Your task to perform on an android device: Show me popular games on the Play Store Image 0: 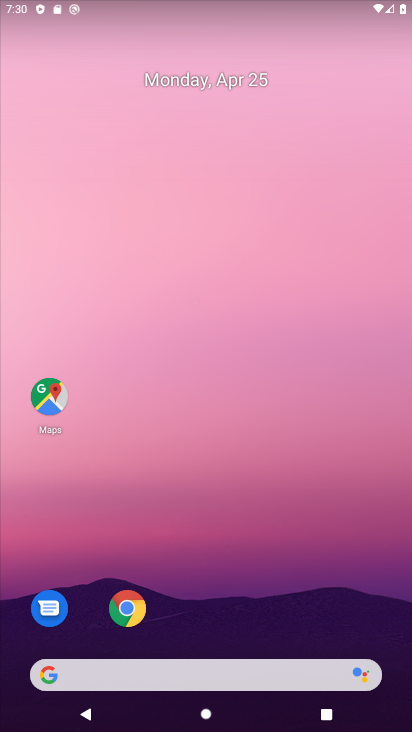
Step 0: drag from (245, 582) to (257, 127)
Your task to perform on an android device: Show me popular games on the Play Store Image 1: 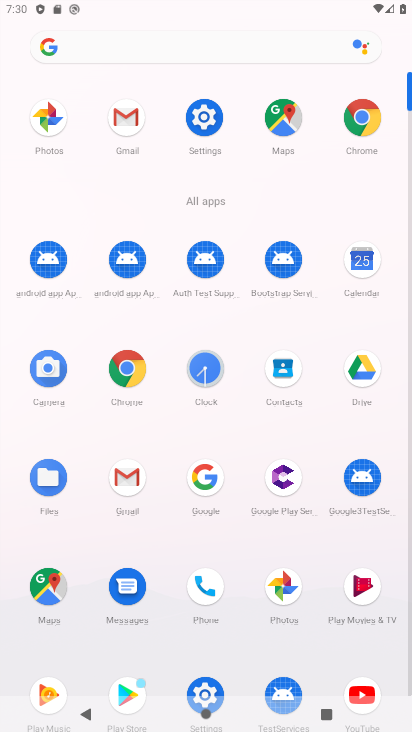
Step 1: drag from (155, 652) to (208, 420)
Your task to perform on an android device: Show me popular games on the Play Store Image 2: 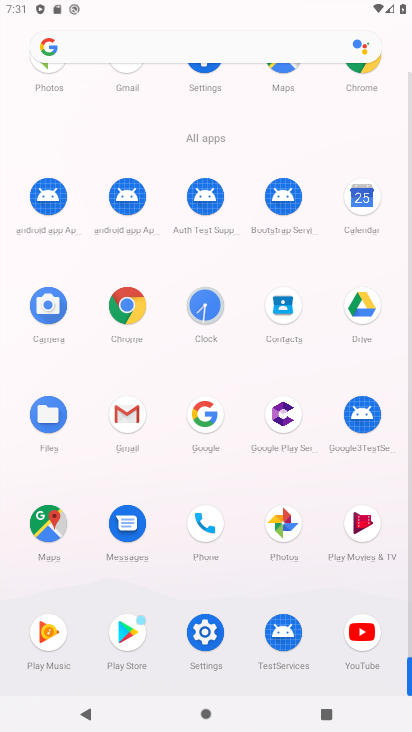
Step 2: click (130, 624)
Your task to perform on an android device: Show me popular games on the Play Store Image 3: 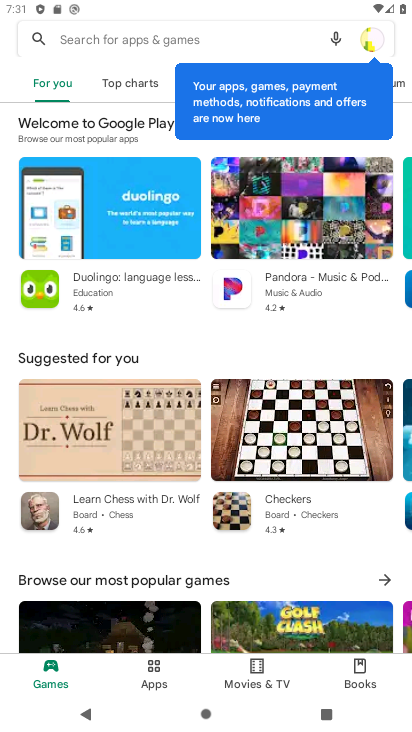
Step 3: click (107, 37)
Your task to perform on an android device: Show me popular games on the Play Store Image 4: 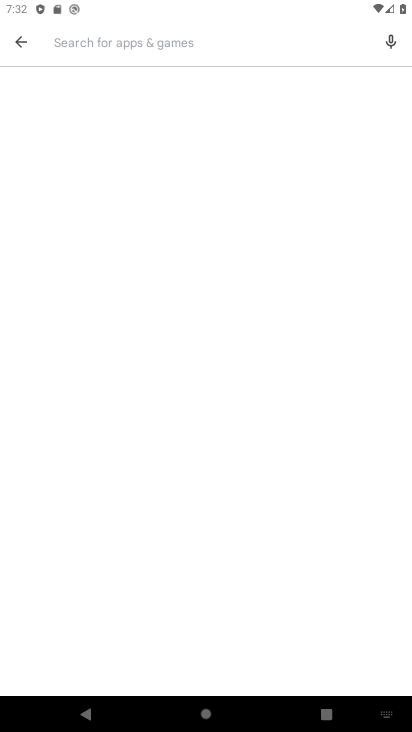
Step 4: type "Popular games"
Your task to perform on an android device: Show me popular games on the Play Store Image 5: 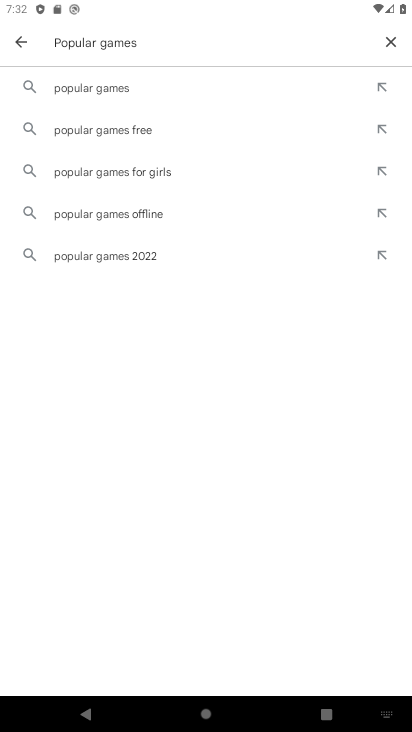
Step 5: click (93, 86)
Your task to perform on an android device: Show me popular games on the Play Store Image 6: 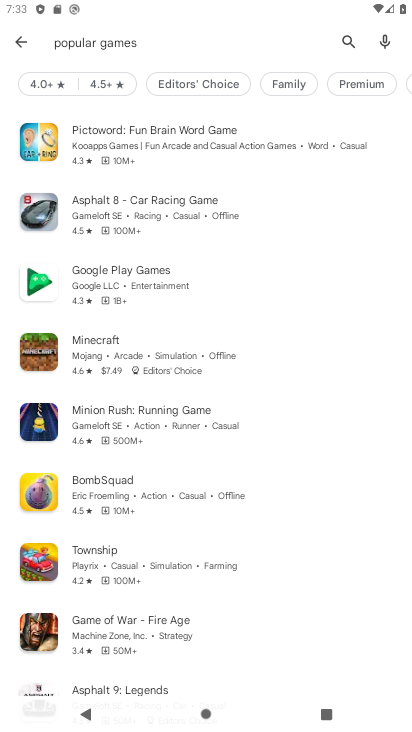
Step 6: task complete